Your task to perform on an android device: Open Google Maps and go to "Timeline" Image 0: 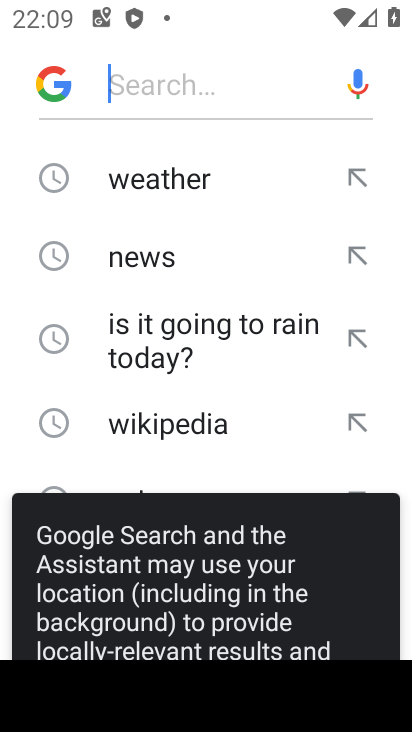
Step 0: press home button
Your task to perform on an android device: Open Google Maps and go to "Timeline" Image 1: 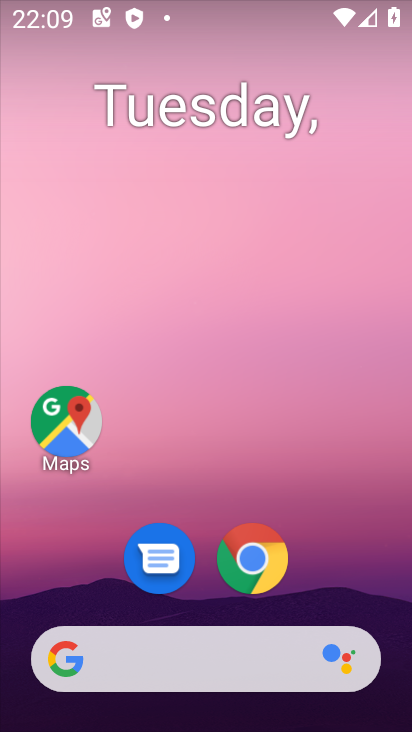
Step 1: click (70, 433)
Your task to perform on an android device: Open Google Maps and go to "Timeline" Image 2: 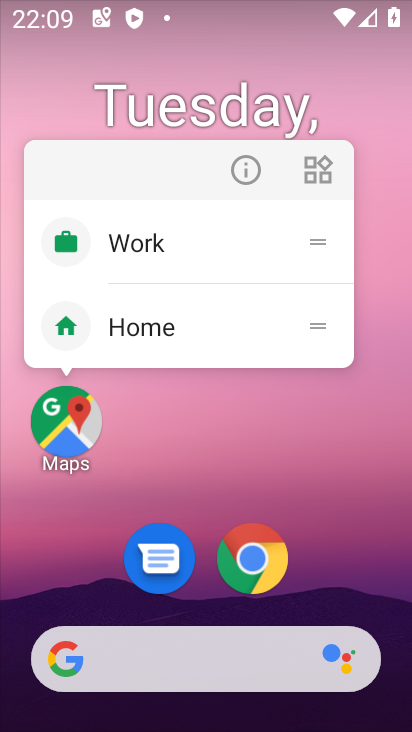
Step 2: click (47, 417)
Your task to perform on an android device: Open Google Maps and go to "Timeline" Image 3: 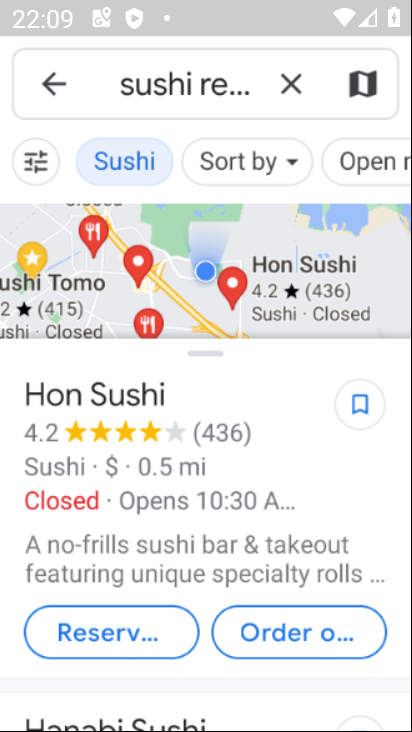
Step 3: click (47, 417)
Your task to perform on an android device: Open Google Maps and go to "Timeline" Image 4: 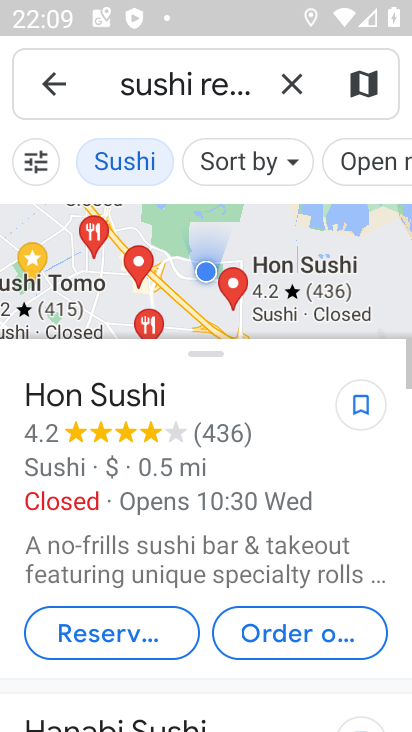
Step 4: click (36, 91)
Your task to perform on an android device: Open Google Maps and go to "Timeline" Image 5: 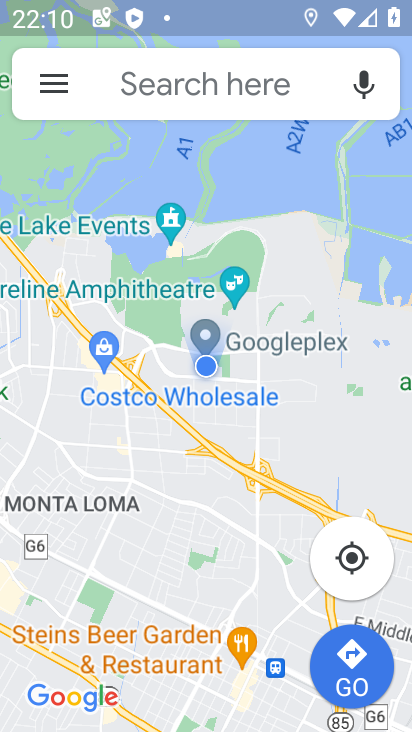
Step 5: click (44, 77)
Your task to perform on an android device: Open Google Maps and go to "Timeline" Image 6: 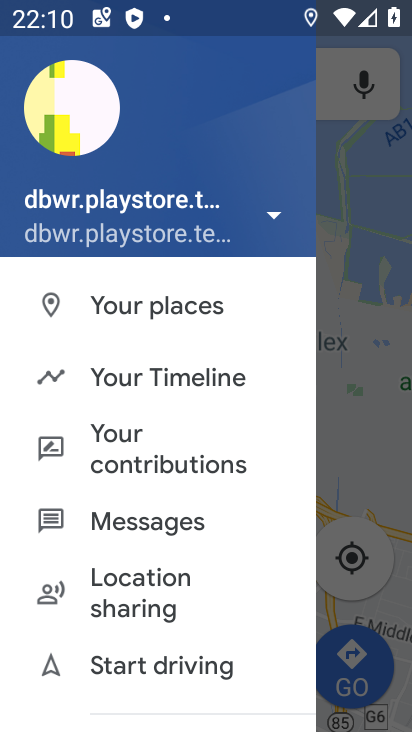
Step 6: click (115, 388)
Your task to perform on an android device: Open Google Maps and go to "Timeline" Image 7: 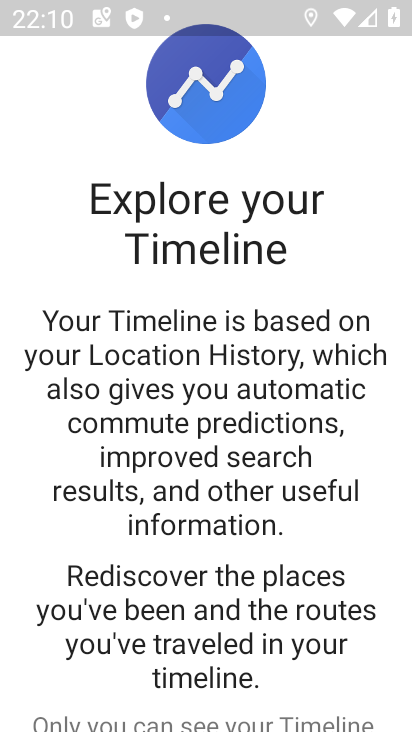
Step 7: drag from (220, 586) to (287, 4)
Your task to perform on an android device: Open Google Maps and go to "Timeline" Image 8: 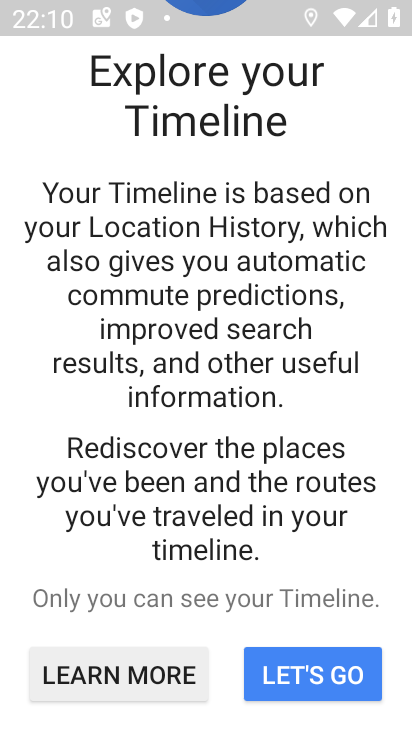
Step 8: click (282, 685)
Your task to perform on an android device: Open Google Maps and go to "Timeline" Image 9: 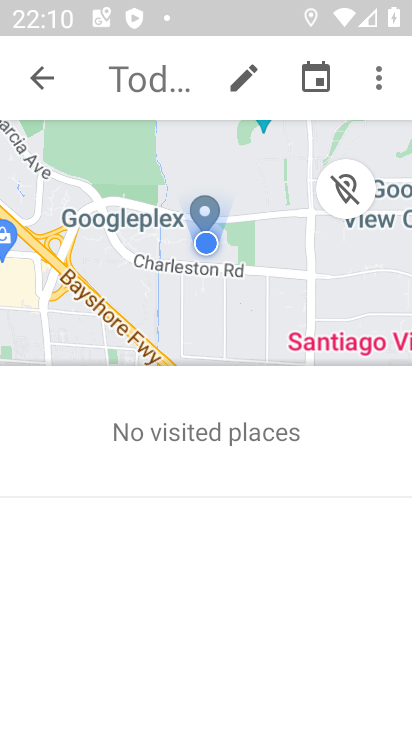
Step 9: task complete